Your task to perform on an android device: Open Google Maps Image 0: 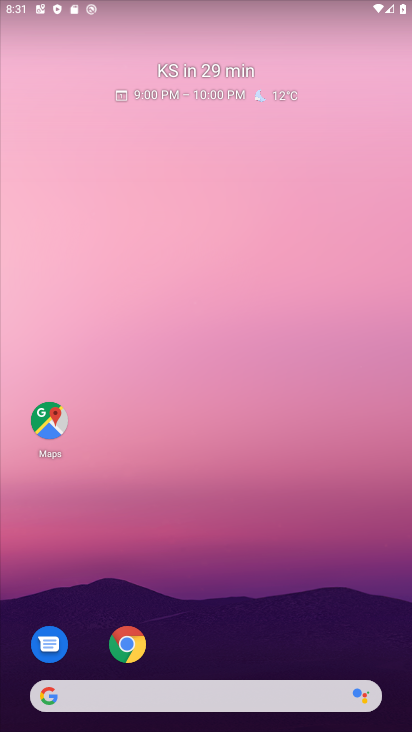
Step 0: click (50, 422)
Your task to perform on an android device: Open Google Maps Image 1: 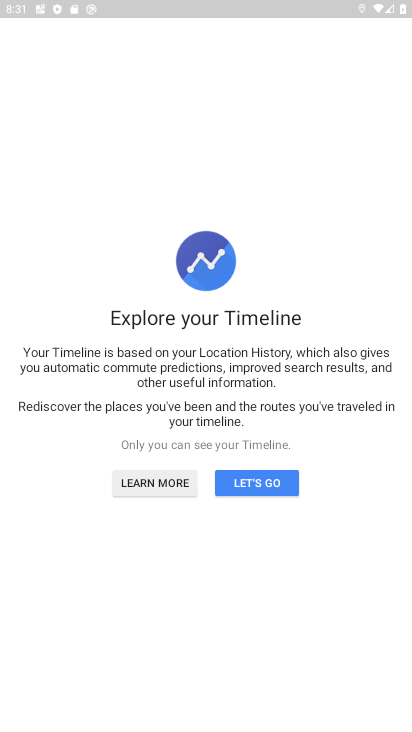
Step 1: task complete